Your task to perform on an android device: Open Android settings Image 0: 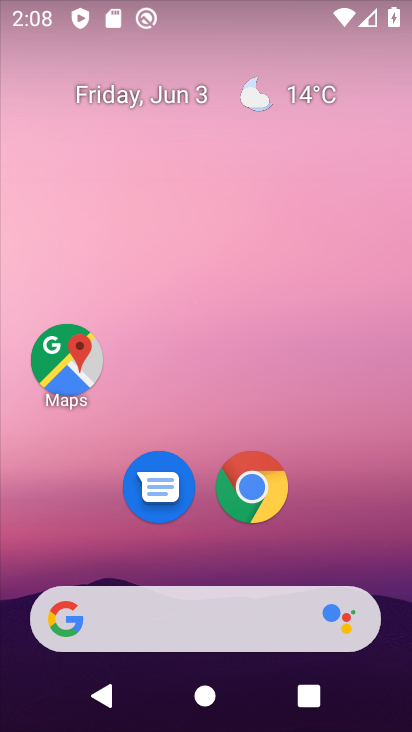
Step 0: drag from (293, 383) to (209, 54)
Your task to perform on an android device: Open Android settings Image 1: 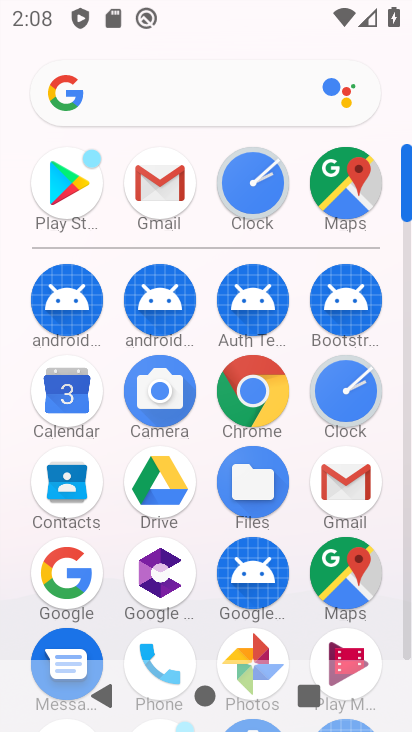
Step 1: drag from (244, 622) to (245, 149)
Your task to perform on an android device: Open Android settings Image 2: 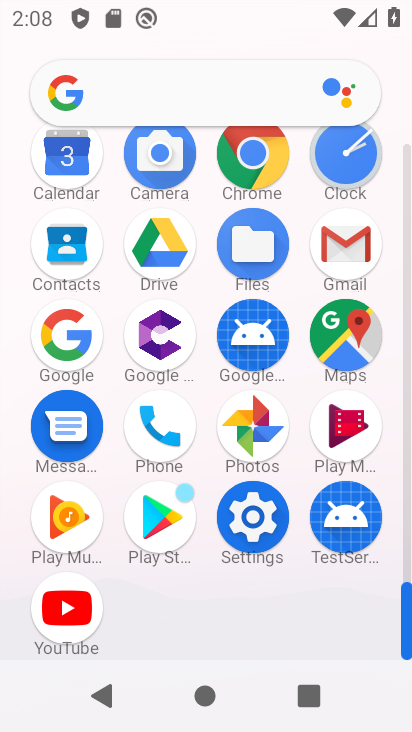
Step 2: click (281, 518)
Your task to perform on an android device: Open Android settings Image 3: 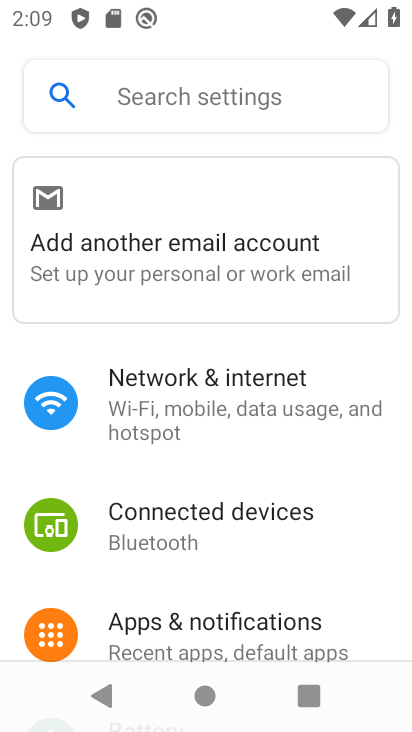
Step 3: drag from (225, 577) to (239, 140)
Your task to perform on an android device: Open Android settings Image 4: 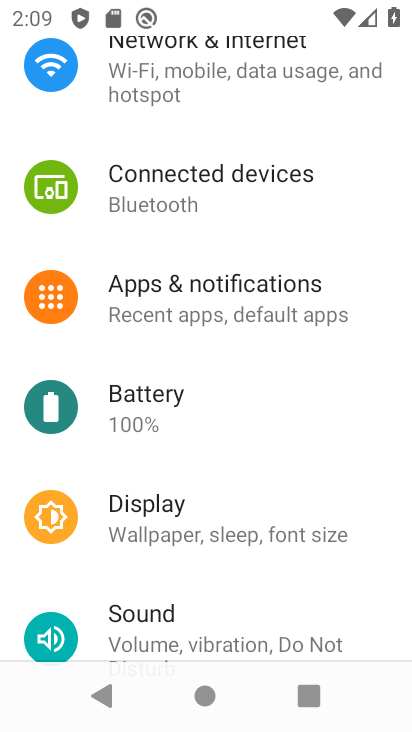
Step 4: drag from (234, 552) to (230, 7)
Your task to perform on an android device: Open Android settings Image 5: 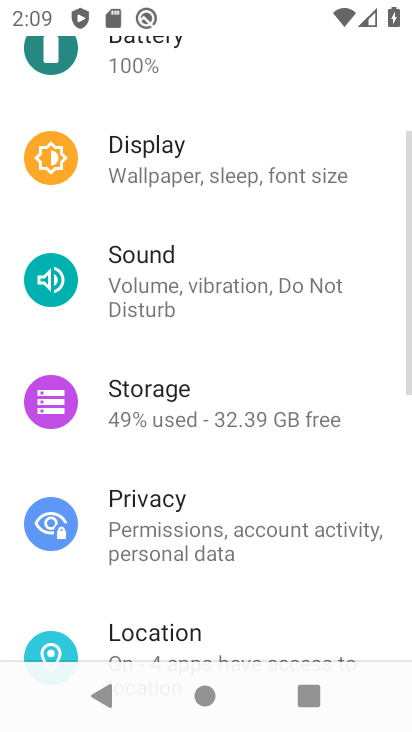
Step 5: drag from (200, 493) to (206, 63)
Your task to perform on an android device: Open Android settings Image 6: 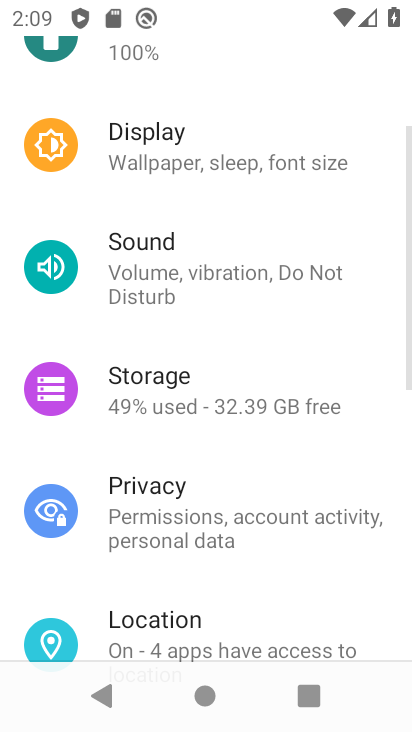
Step 6: drag from (216, 567) to (211, 47)
Your task to perform on an android device: Open Android settings Image 7: 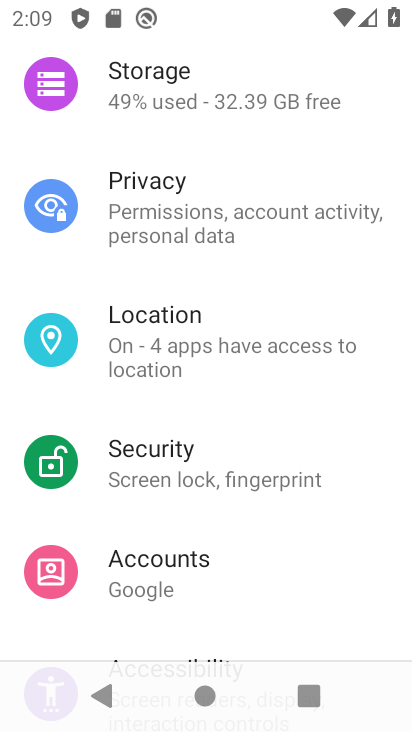
Step 7: drag from (250, 176) to (229, 67)
Your task to perform on an android device: Open Android settings Image 8: 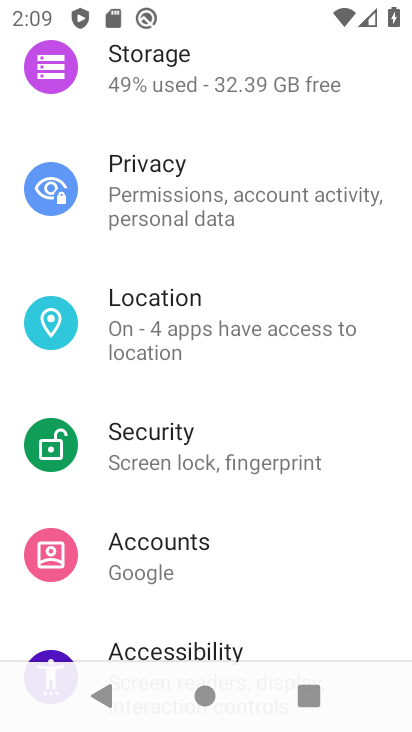
Step 8: drag from (264, 579) to (236, 151)
Your task to perform on an android device: Open Android settings Image 9: 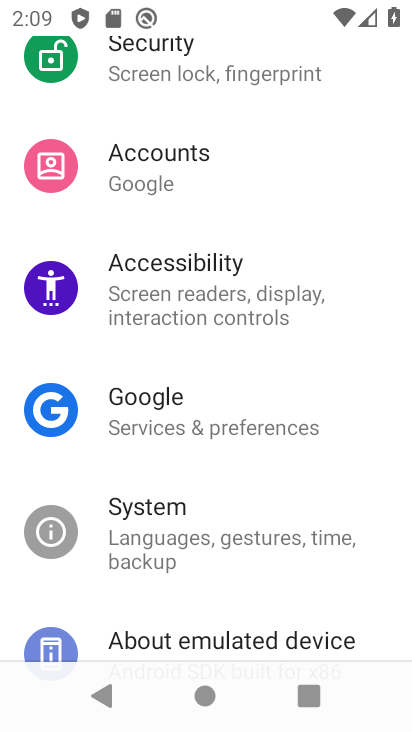
Step 9: drag from (241, 588) to (196, 115)
Your task to perform on an android device: Open Android settings Image 10: 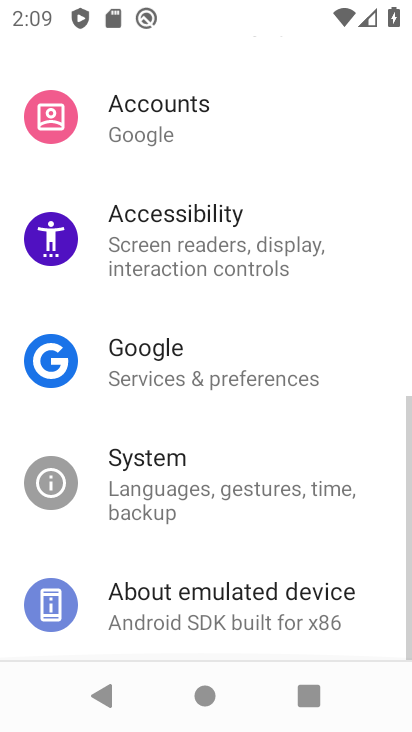
Step 10: drag from (252, 592) to (250, 447)
Your task to perform on an android device: Open Android settings Image 11: 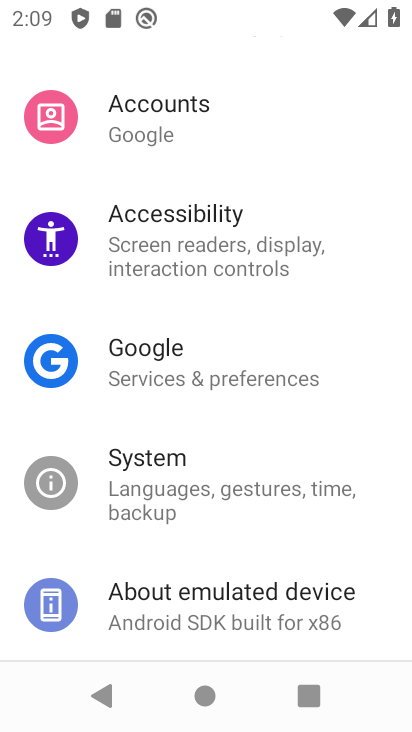
Step 11: click (243, 587)
Your task to perform on an android device: Open Android settings Image 12: 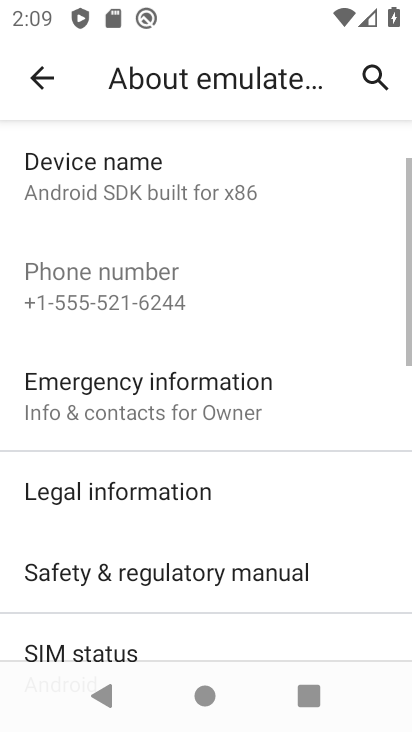
Step 12: drag from (228, 559) to (267, 143)
Your task to perform on an android device: Open Android settings Image 13: 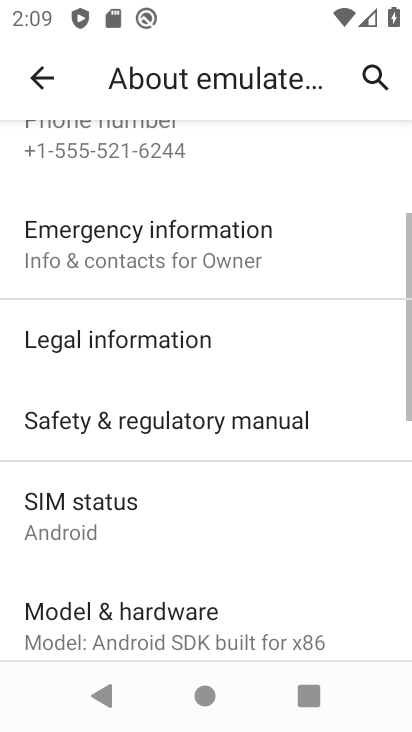
Step 13: drag from (228, 476) to (217, 111)
Your task to perform on an android device: Open Android settings Image 14: 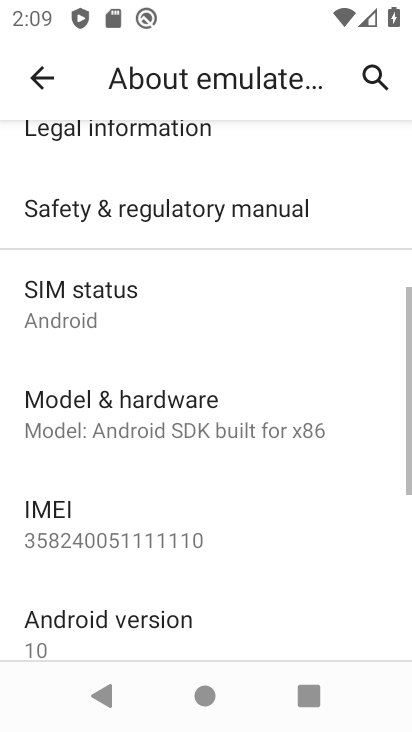
Step 14: click (156, 608)
Your task to perform on an android device: Open Android settings Image 15: 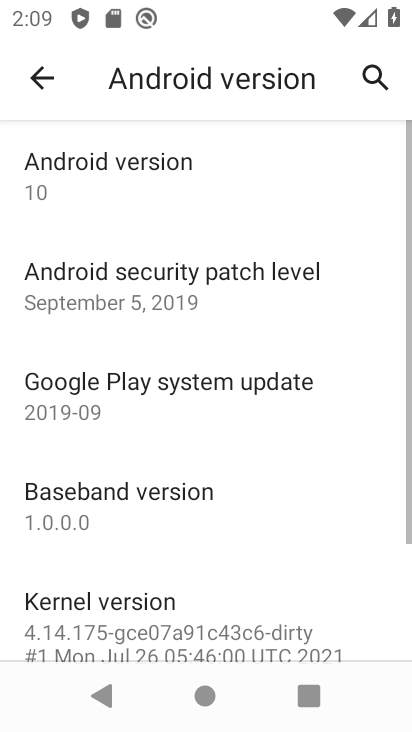
Step 15: task complete